Your task to perform on an android device: turn on sleep mode Image 0: 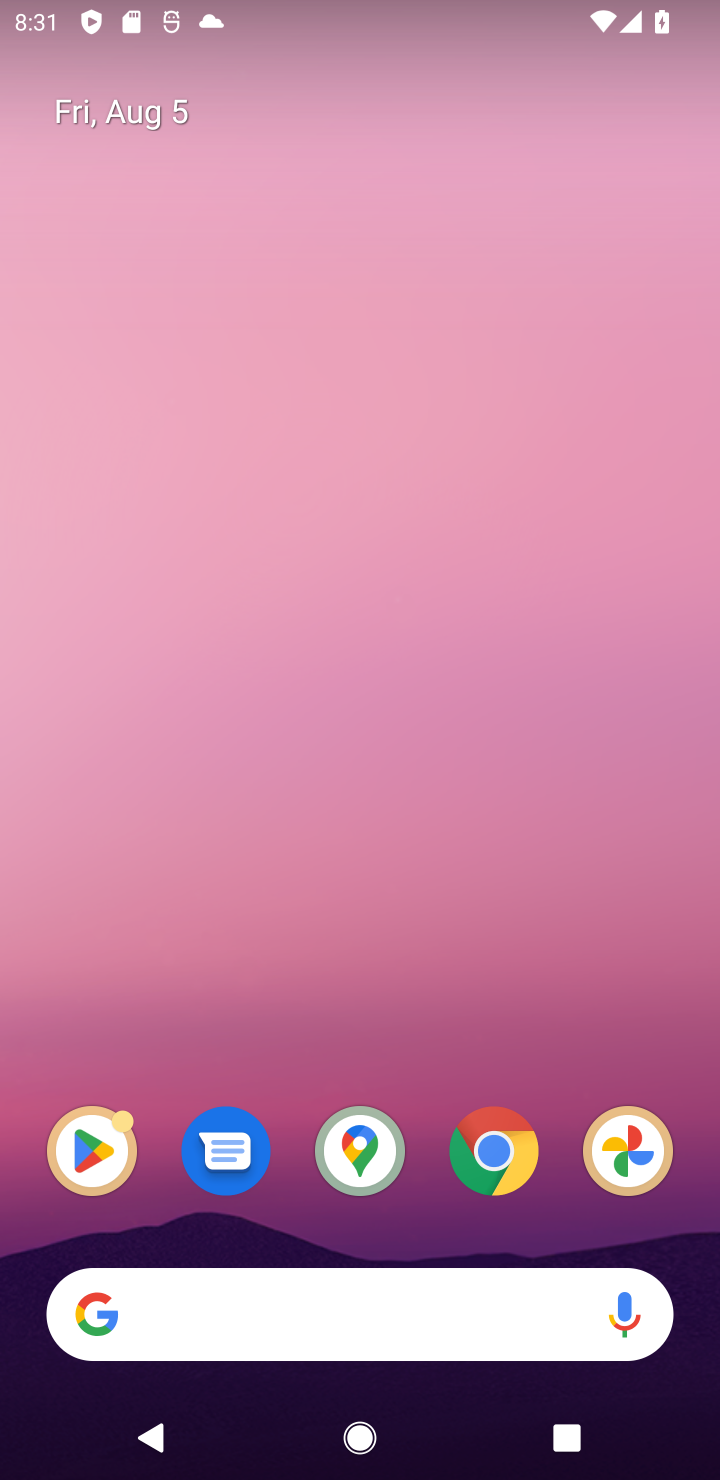
Step 0: press back button
Your task to perform on an android device: turn on sleep mode Image 1: 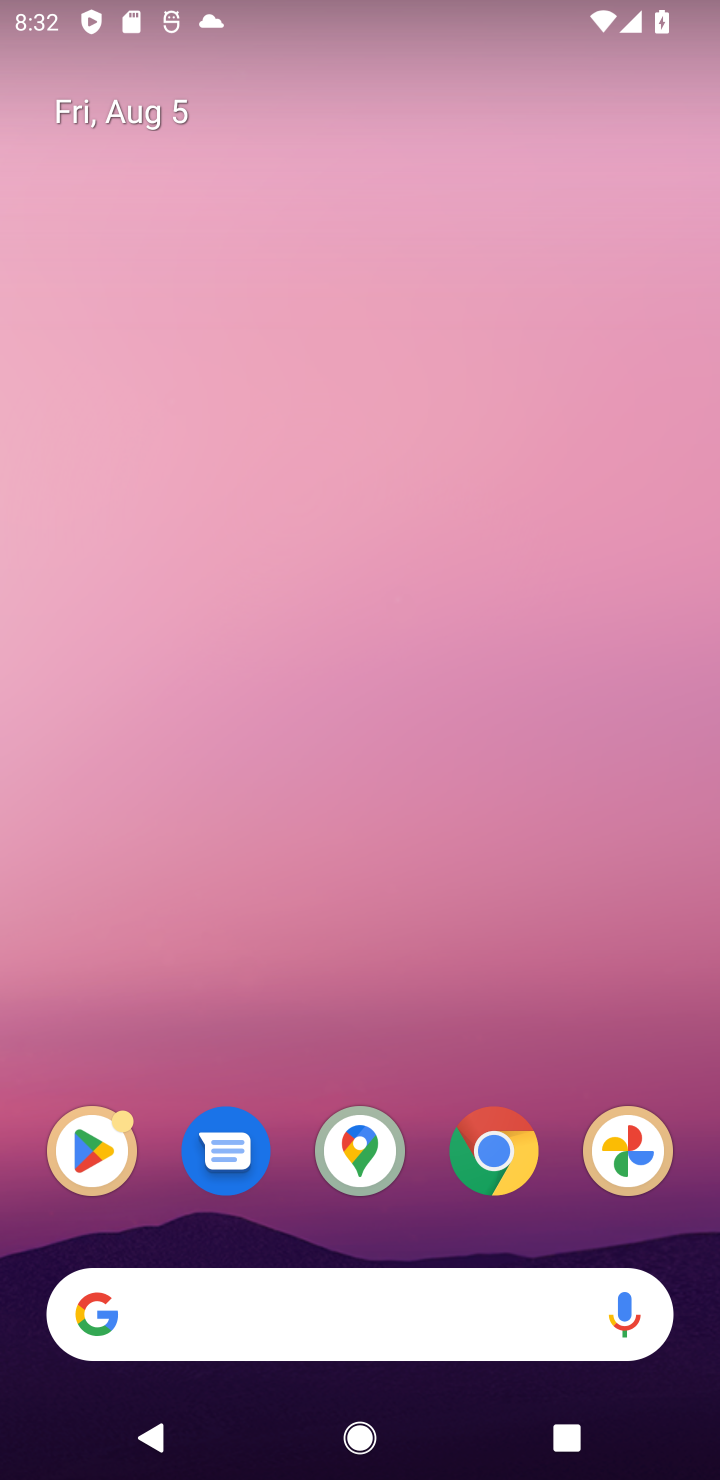
Step 1: task complete